Your task to perform on an android device: toggle airplane mode Image 0: 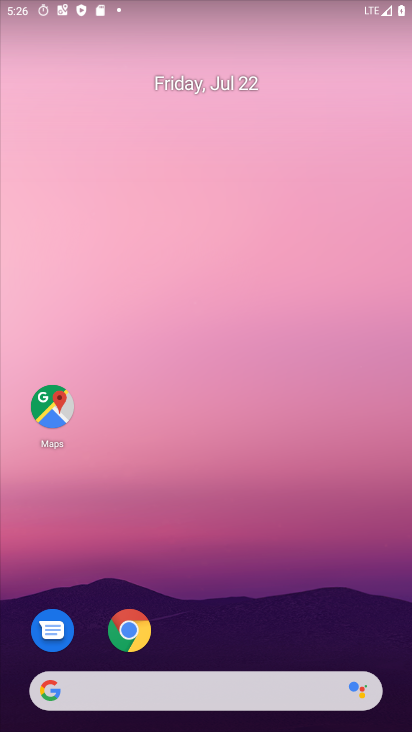
Step 0: drag from (133, 575) to (200, 17)
Your task to perform on an android device: toggle airplane mode Image 1: 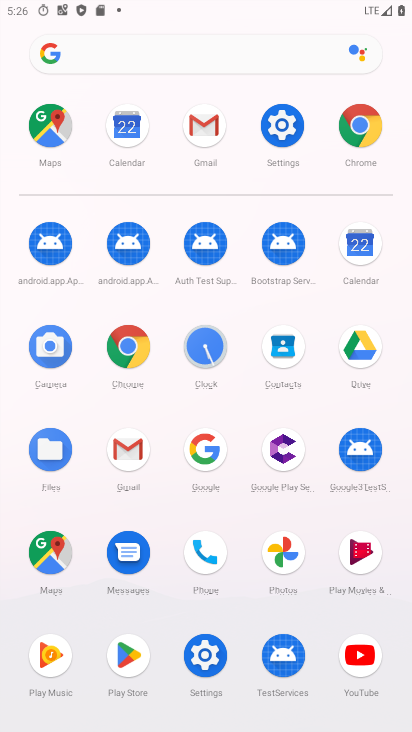
Step 1: click (286, 108)
Your task to perform on an android device: toggle airplane mode Image 2: 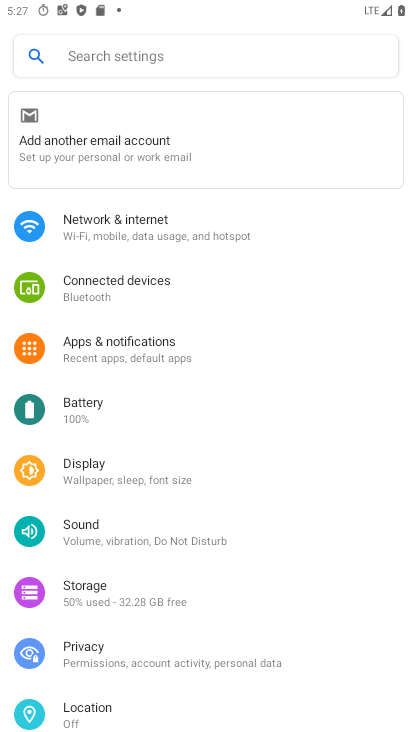
Step 2: click (132, 239)
Your task to perform on an android device: toggle airplane mode Image 3: 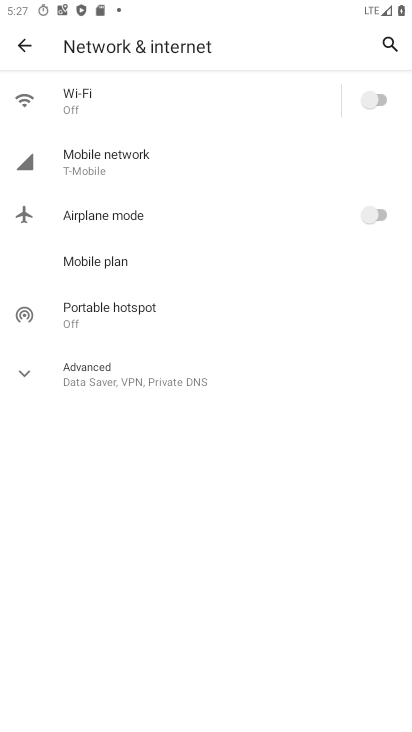
Step 3: click (384, 213)
Your task to perform on an android device: toggle airplane mode Image 4: 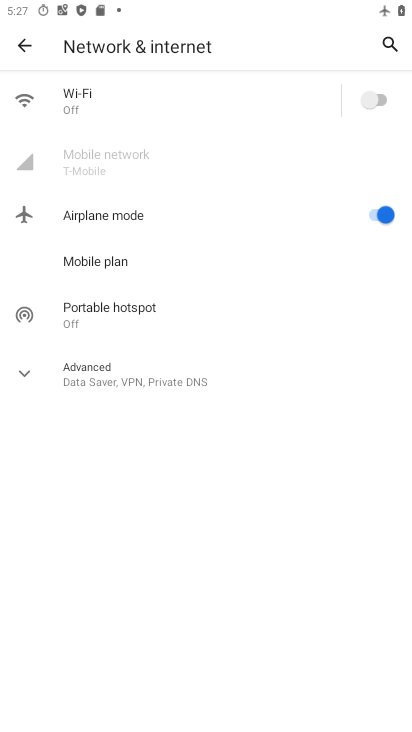
Step 4: task complete